Your task to perform on an android device: turn off data saver in the chrome app Image 0: 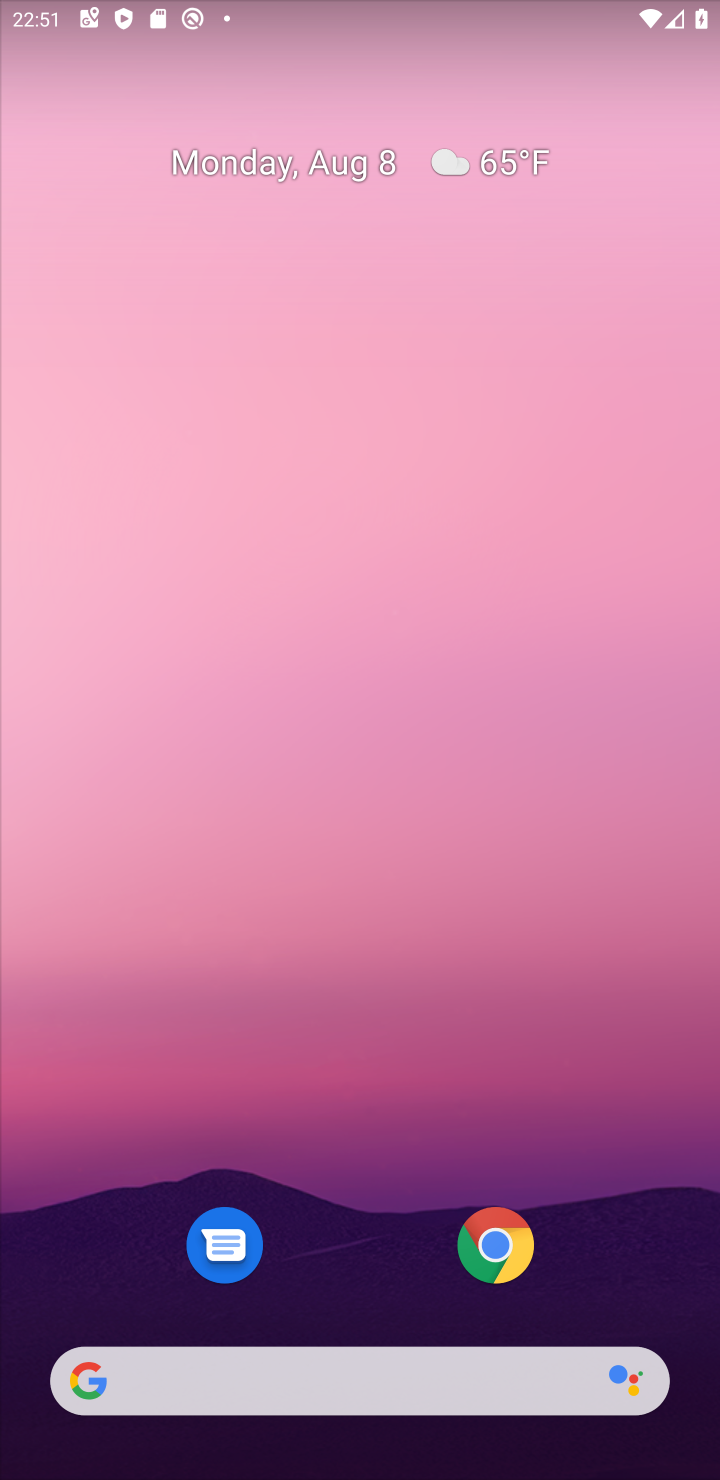
Step 0: click (500, 1231)
Your task to perform on an android device: turn off data saver in the chrome app Image 1: 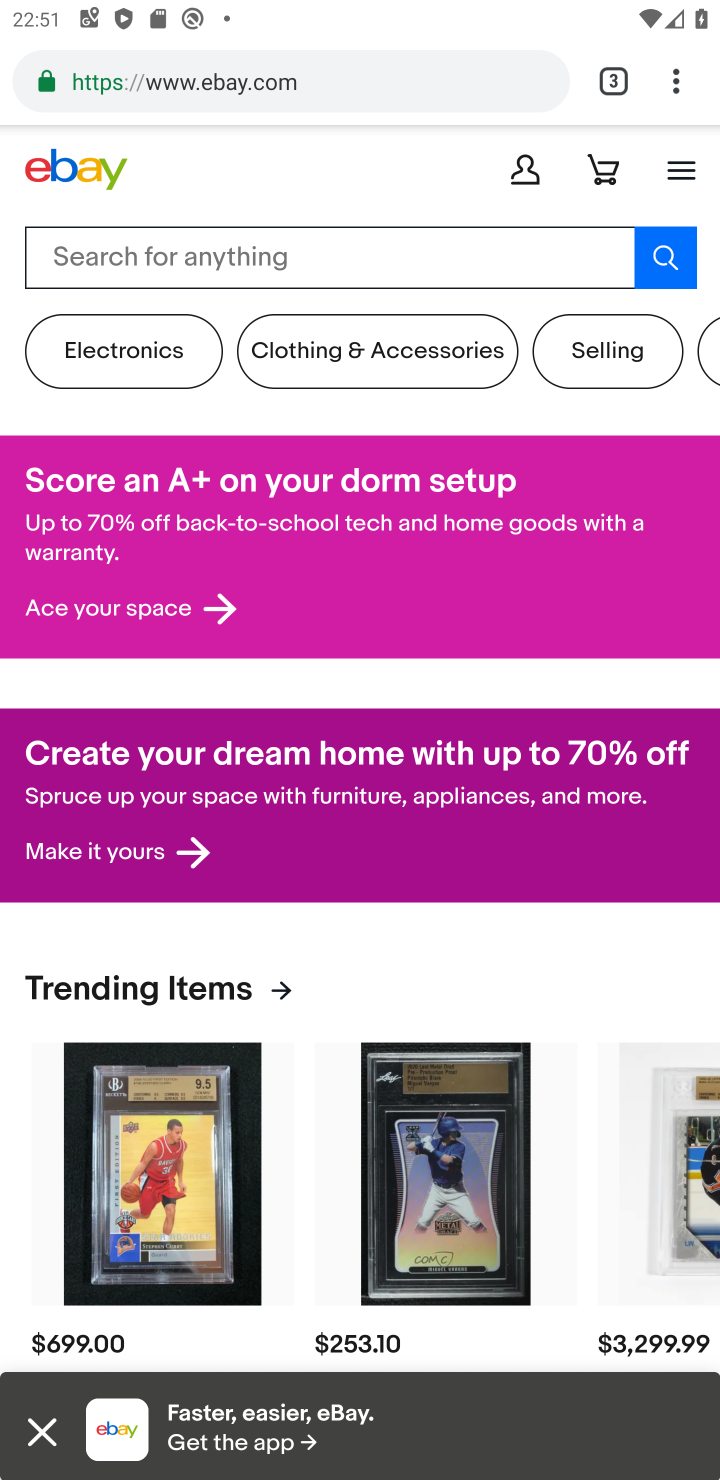
Step 1: click (666, 71)
Your task to perform on an android device: turn off data saver in the chrome app Image 2: 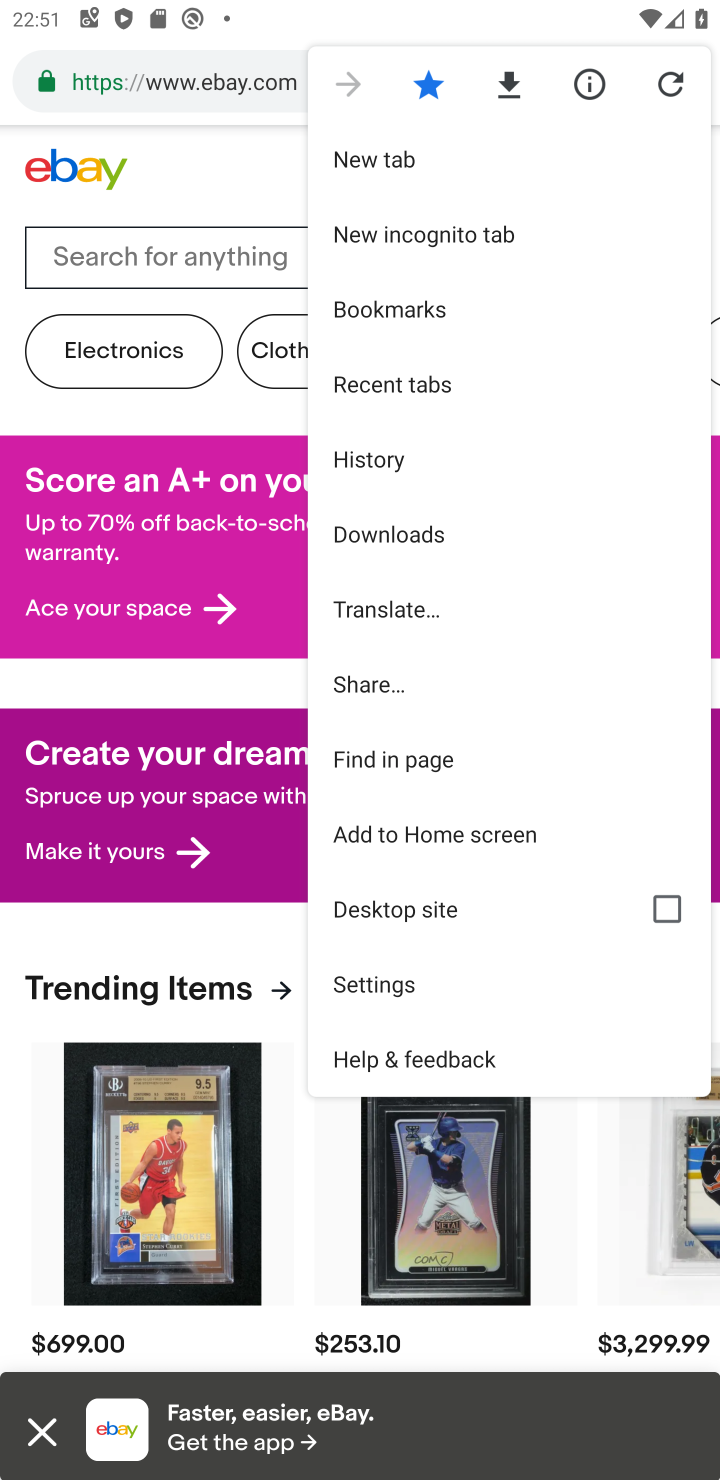
Step 2: click (390, 976)
Your task to perform on an android device: turn off data saver in the chrome app Image 3: 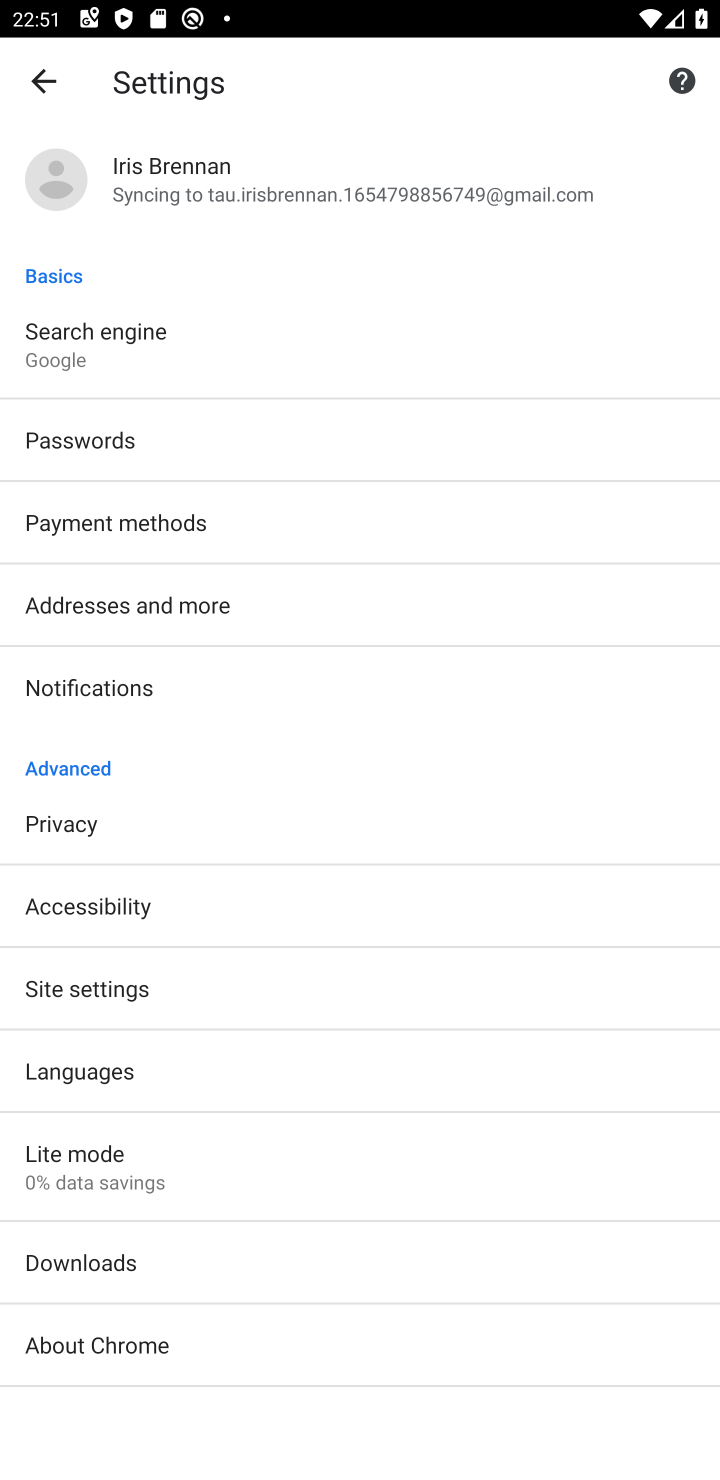
Step 3: click (77, 1163)
Your task to perform on an android device: turn off data saver in the chrome app Image 4: 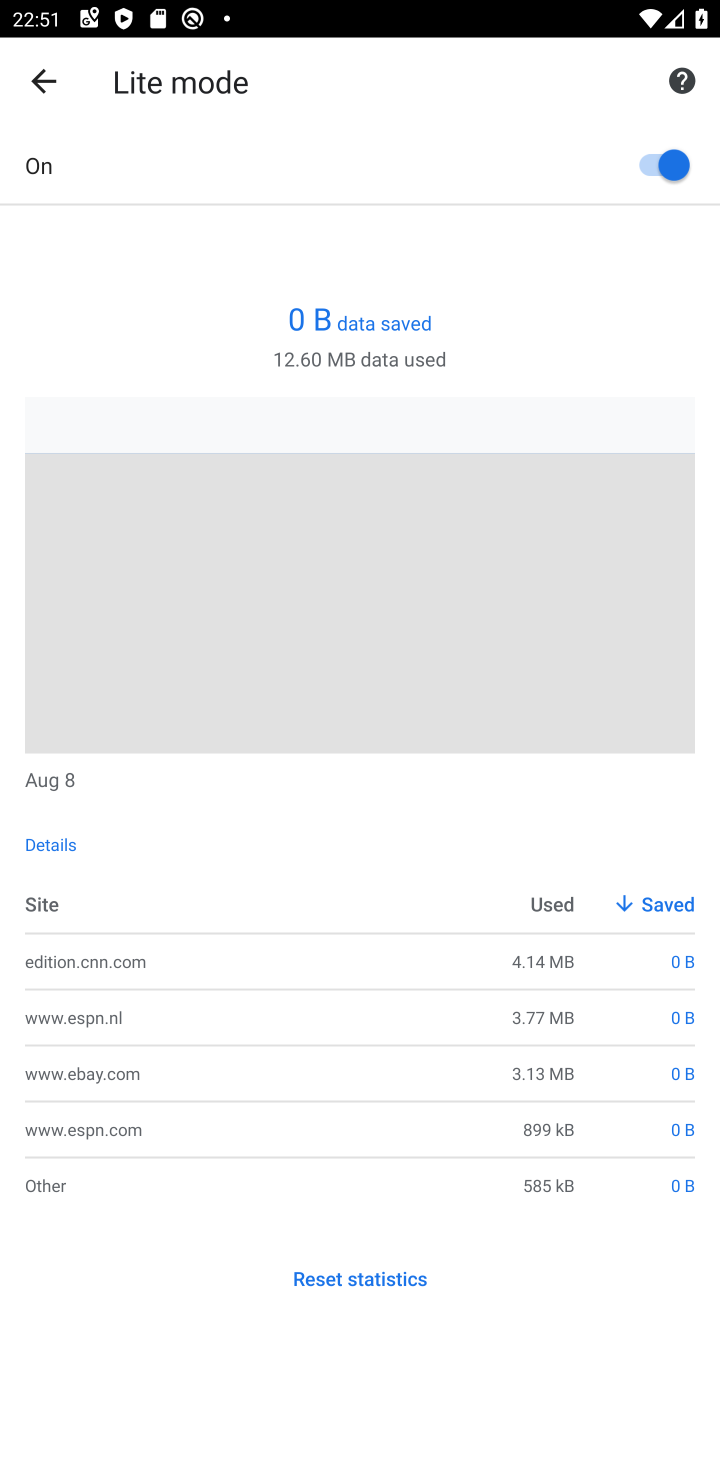
Step 4: click (645, 166)
Your task to perform on an android device: turn off data saver in the chrome app Image 5: 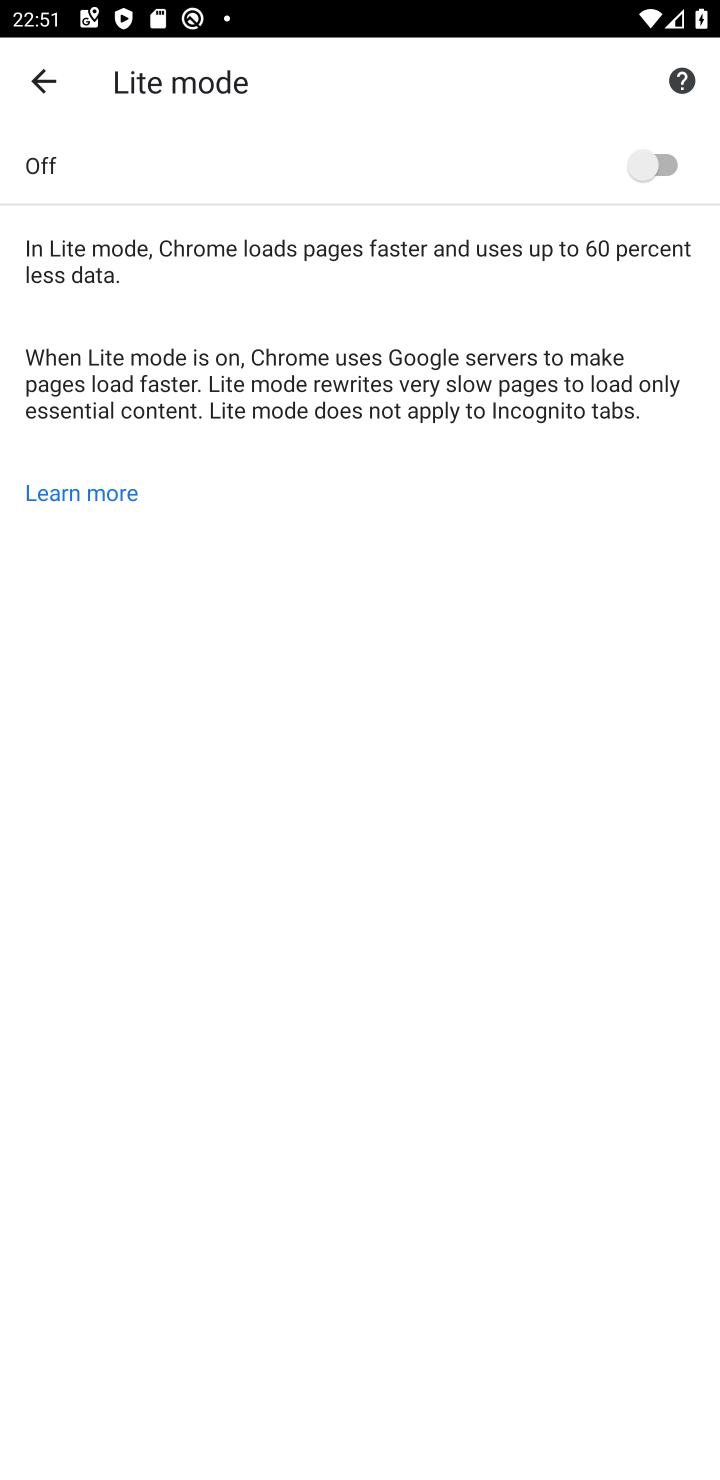
Step 5: task complete